Your task to perform on an android device: delete the emails in spam in the gmail app Image 0: 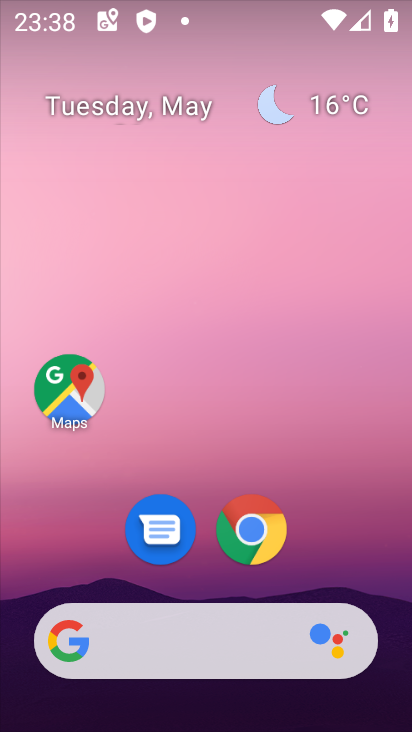
Step 0: drag from (80, 583) to (175, 157)
Your task to perform on an android device: delete the emails in spam in the gmail app Image 1: 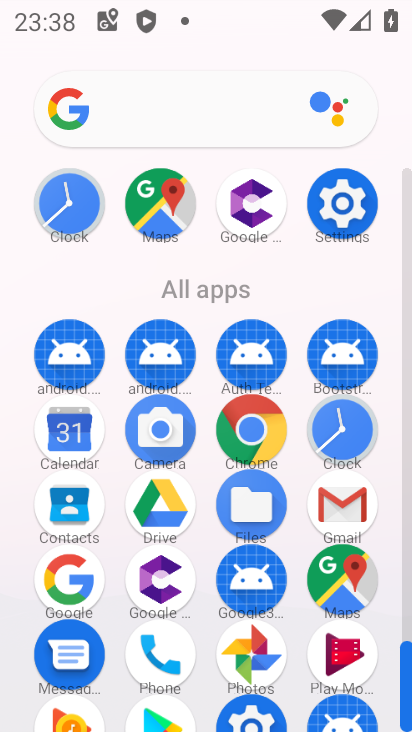
Step 1: click (362, 521)
Your task to perform on an android device: delete the emails in spam in the gmail app Image 2: 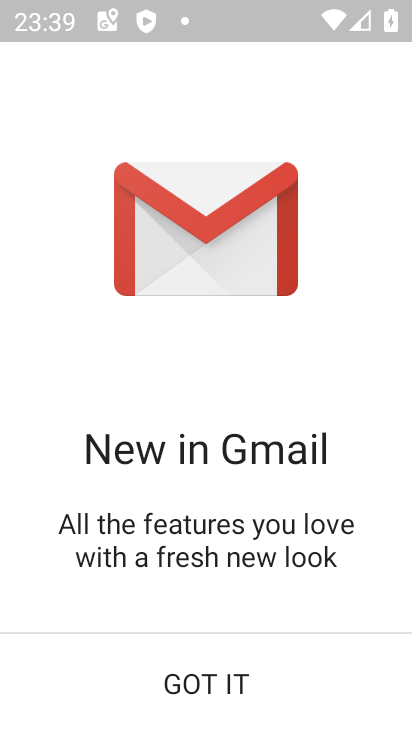
Step 2: click (246, 716)
Your task to perform on an android device: delete the emails in spam in the gmail app Image 3: 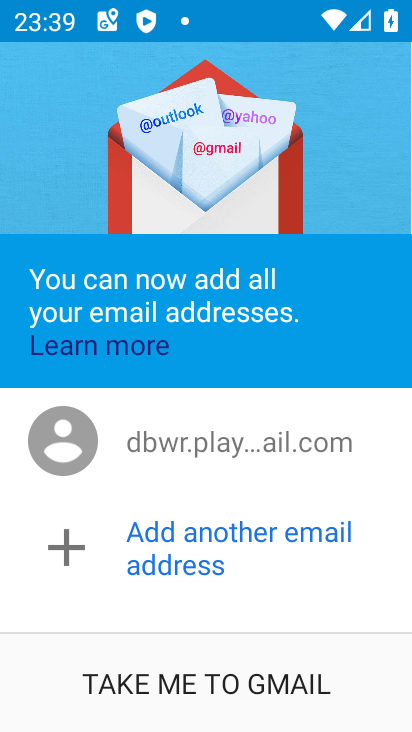
Step 3: click (246, 707)
Your task to perform on an android device: delete the emails in spam in the gmail app Image 4: 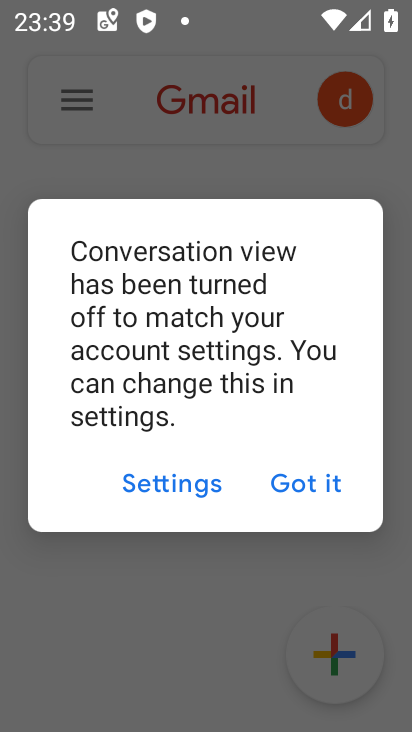
Step 4: click (340, 505)
Your task to perform on an android device: delete the emails in spam in the gmail app Image 5: 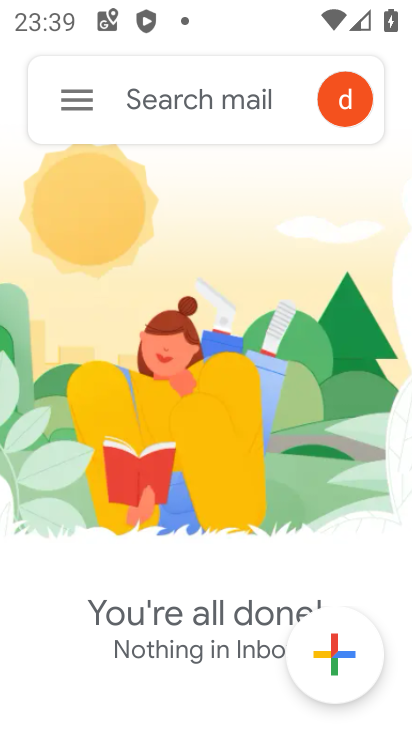
Step 5: click (77, 114)
Your task to perform on an android device: delete the emails in spam in the gmail app Image 6: 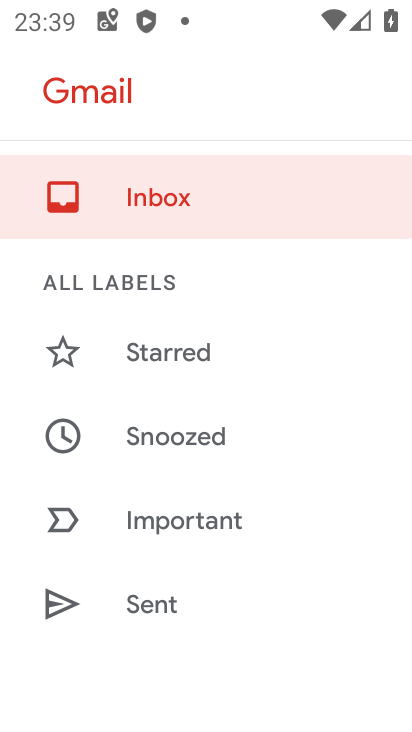
Step 6: drag from (150, 638) to (226, 163)
Your task to perform on an android device: delete the emails in spam in the gmail app Image 7: 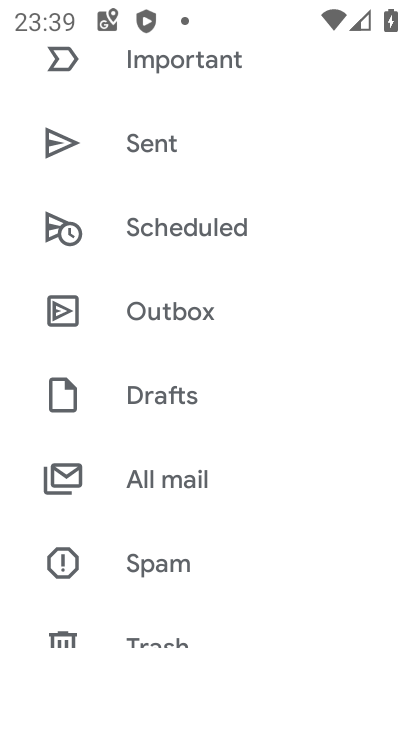
Step 7: drag from (178, 596) to (223, 314)
Your task to perform on an android device: delete the emails in spam in the gmail app Image 8: 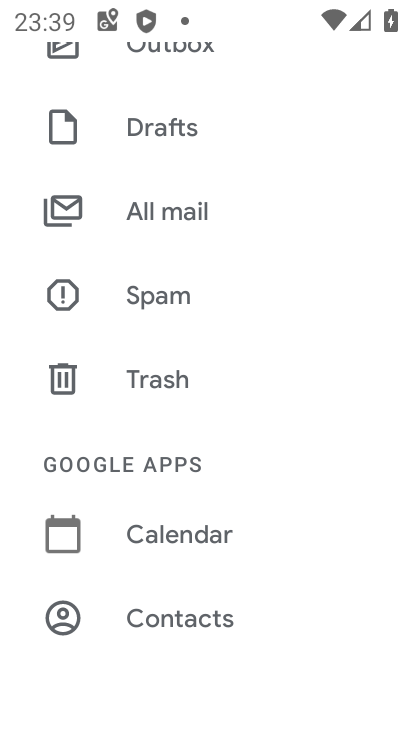
Step 8: click (194, 325)
Your task to perform on an android device: delete the emails in spam in the gmail app Image 9: 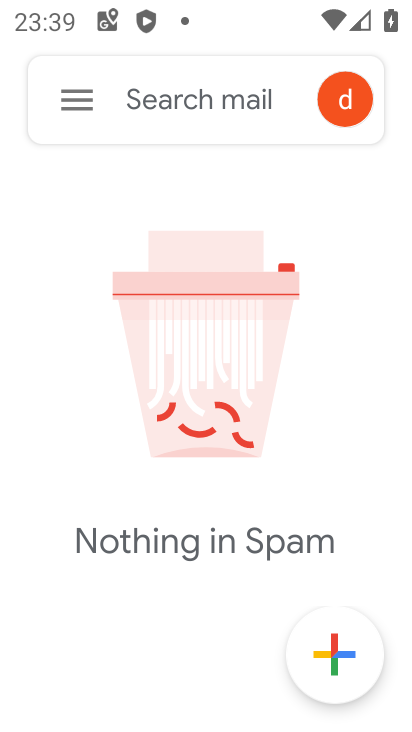
Step 9: task complete